Your task to perform on an android device: Do I have any events tomorrow? Image 0: 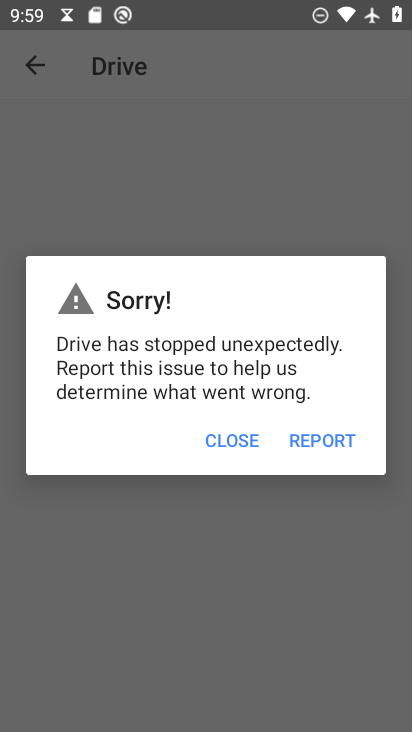
Step 0: press home button
Your task to perform on an android device: Do I have any events tomorrow? Image 1: 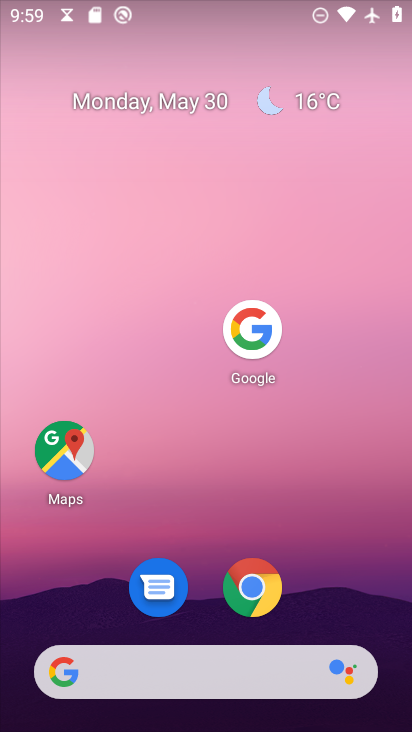
Step 1: drag from (194, 648) to (228, 247)
Your task to perform on an android device: Do I have any events tomorrow? Image 2: 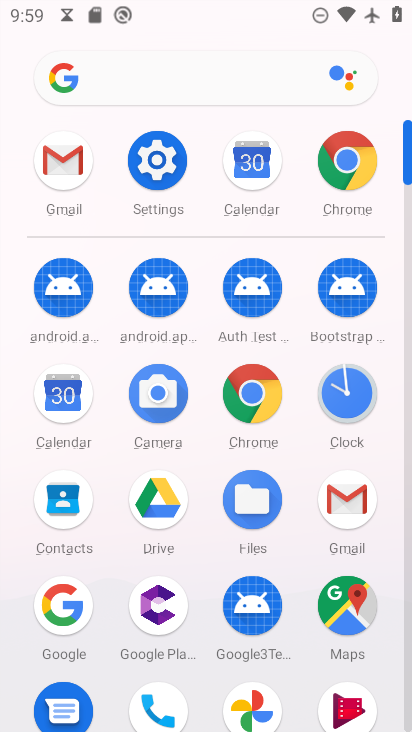
Step 2: click (255, 174)
Your task to perform on an android device: Do I have any events tomorrow? Image 3: 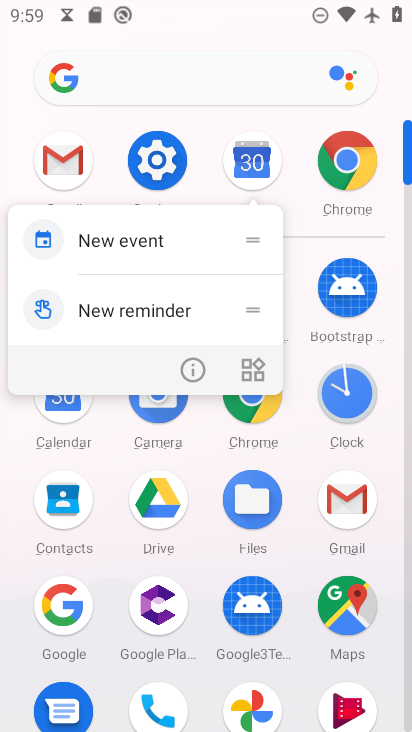
Step 3: click (259, 164)
Your task to perform on an android device: Do I have any events tomorrow? Image 4: 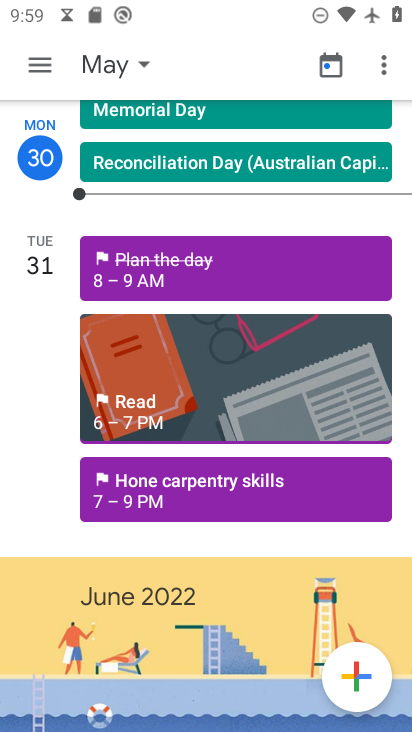
Step 4: click (112, 61)
Your task to perform on an android device: Do I have any events tomorrow? Image 5: 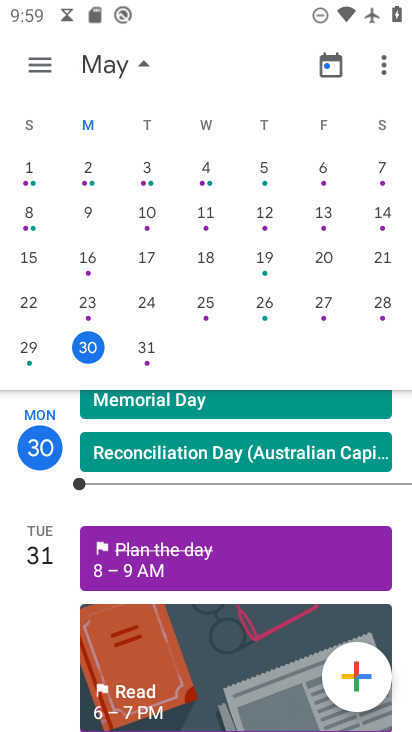
Step 5: click (145, 353)
Your task to perform on an android device: Do I have any events tomorrow? Image 6: 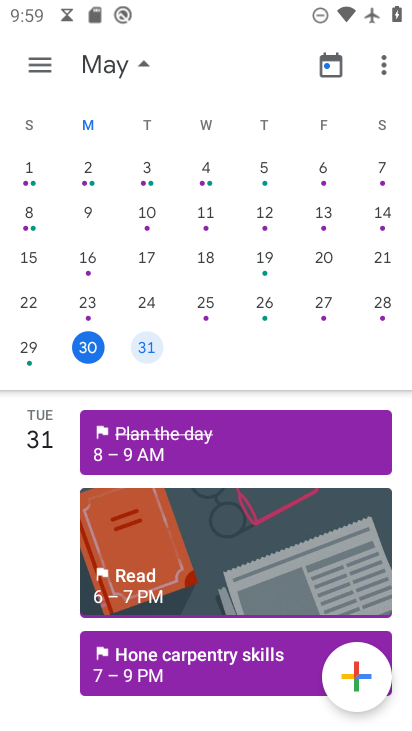
Step 6: click (43, 58)
Your task to perform on an android device: Do I have any events tomorrow? Image 7: 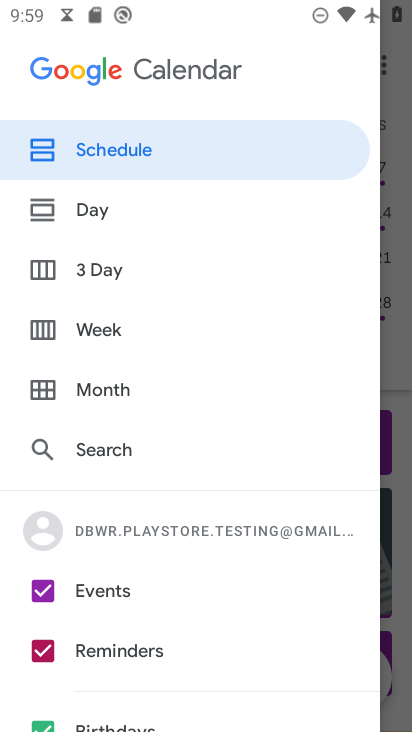
Step 7: click (103, 208)
Your task to perform on an android device: Do I have any events tomorrow? Image 8: 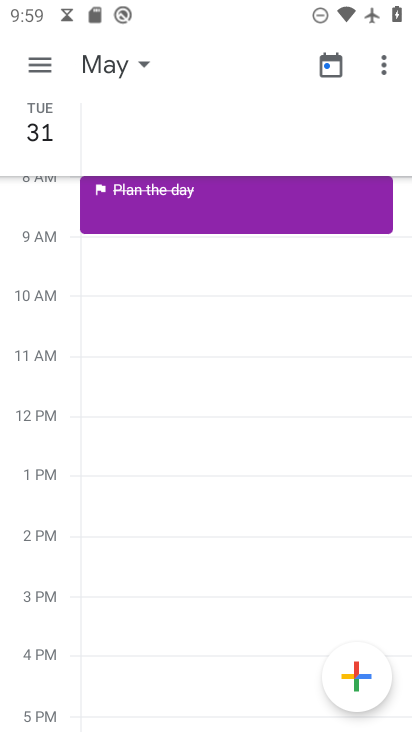
Step 8: click (33, 59)
Your task to perform on an android device: Do I have any events tomorrow? Image 9: 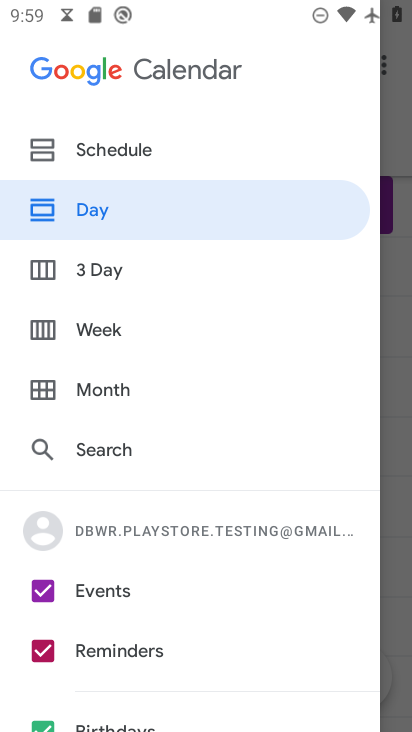
Step 9: click (111, 150)
Your task to perform on an android device: Do I have any events tomorrow? Image 10: 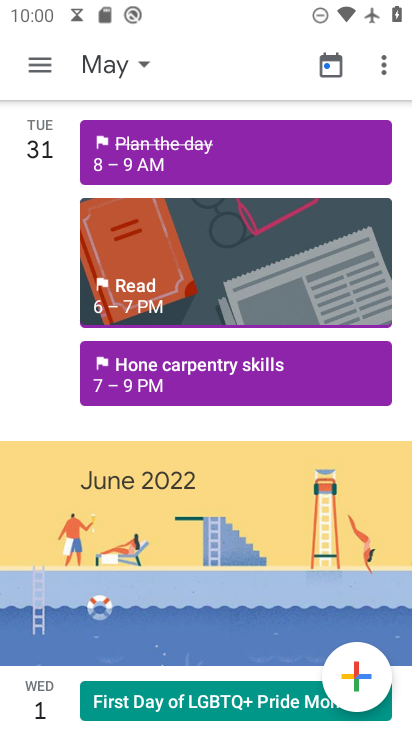
Step 10: click (180, 378)
Your task to perform on an android device: Do I have any events tomorrow? Image 11: 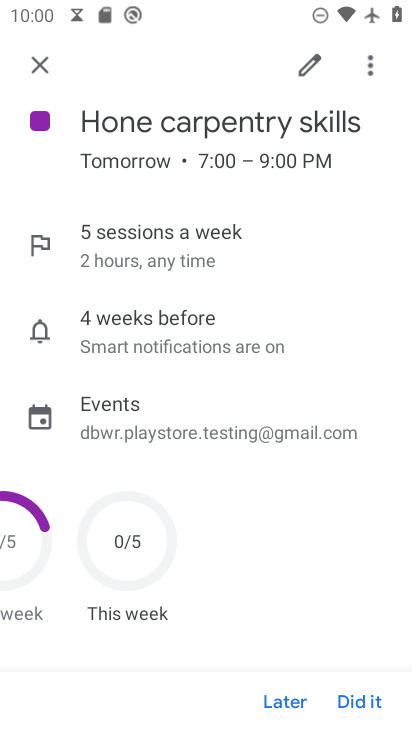
Step 11: task complete